Your task to perform on an android device: Open notification settings Image 0: 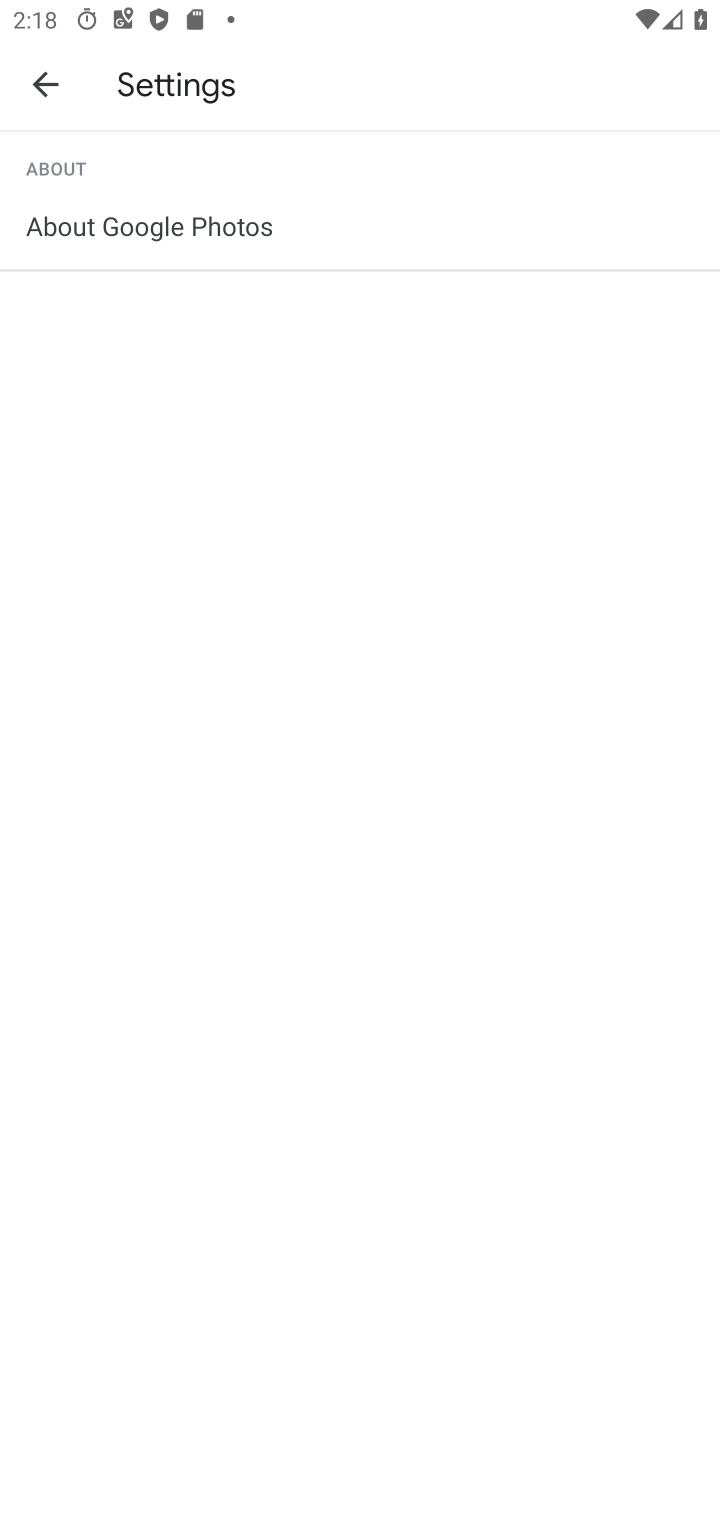
Step 0: press home button
Your task to perform on an android device: Open notification settings Image 1: 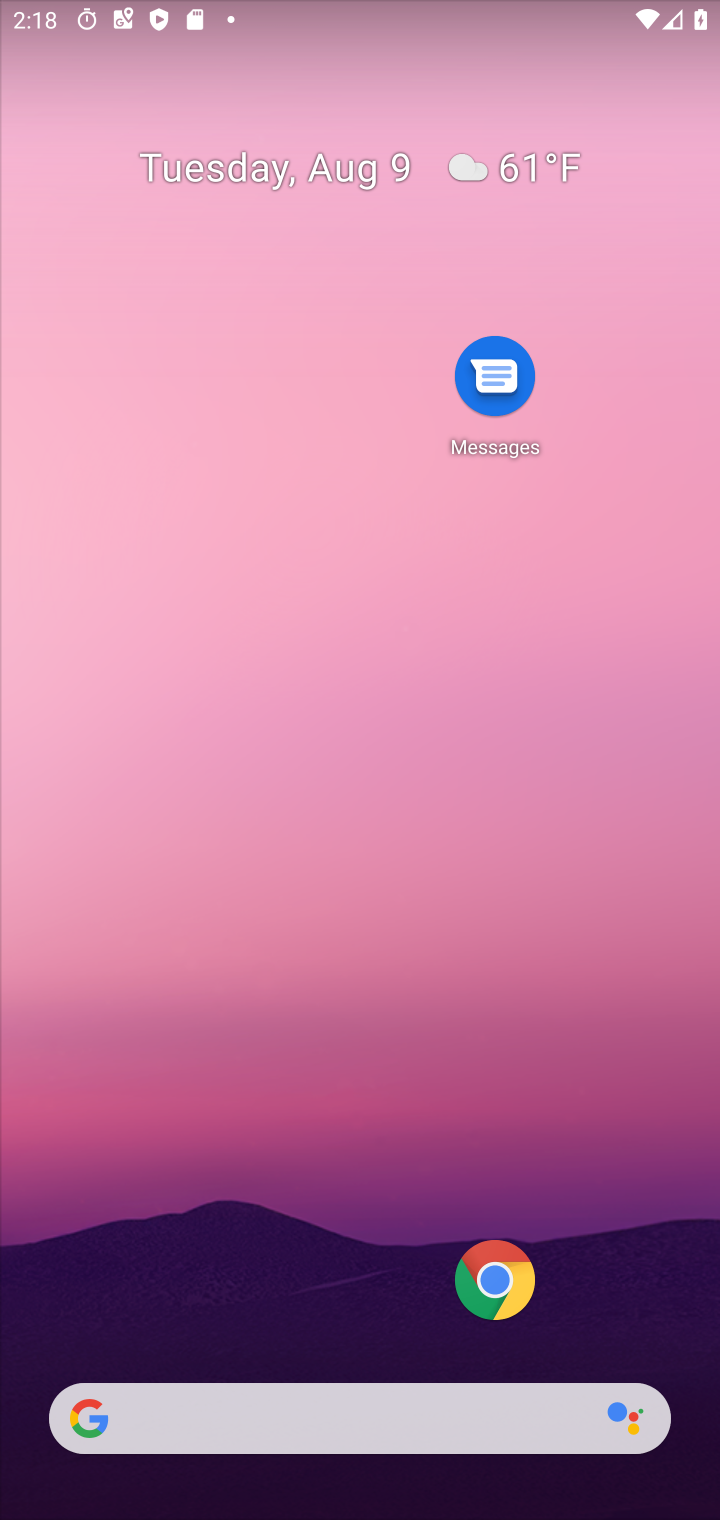
Step 1: drag from (318, 1366) to (591, 378)
Your task to perform on an android device: Open notification settings Image 2: 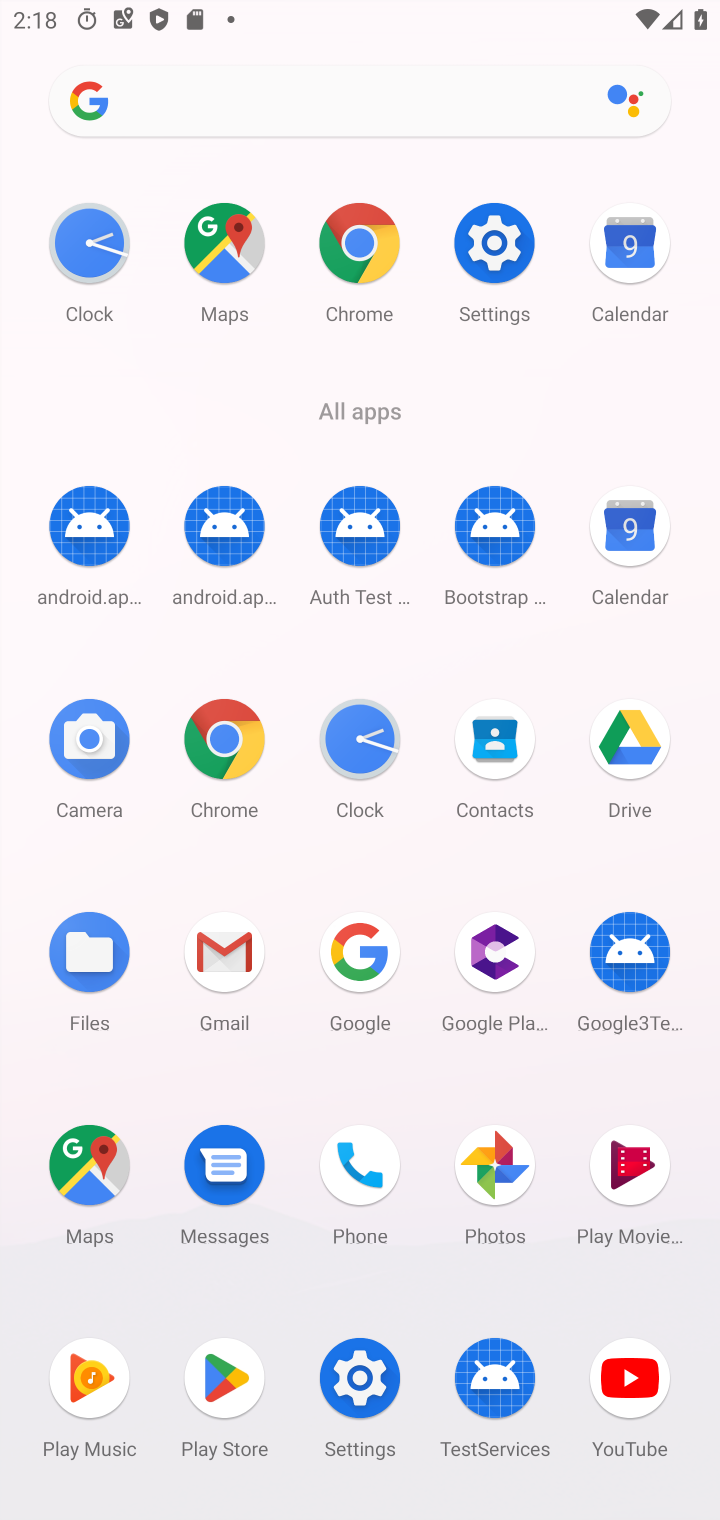
Step 2: click (484, 234)
Your task to perform on an android device: Open notification settings Image 3: 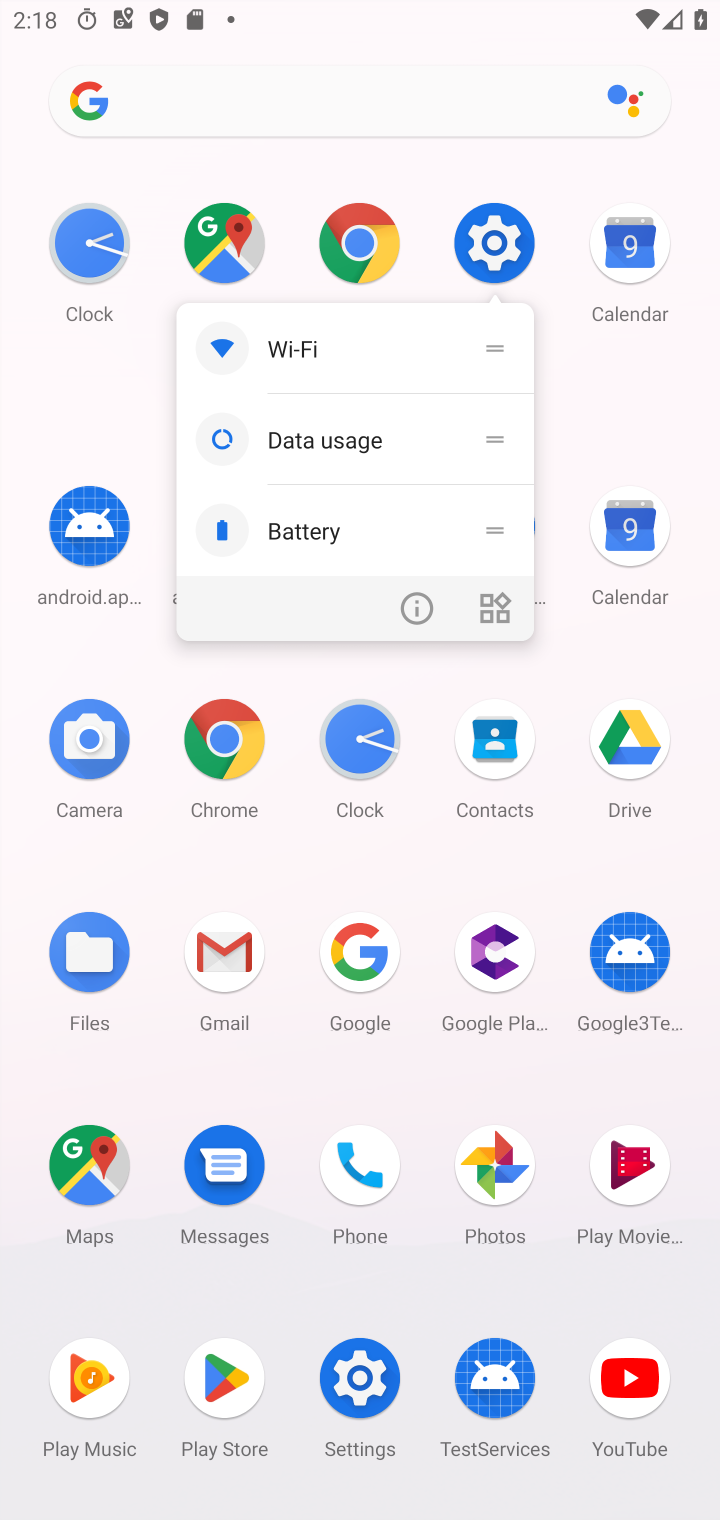
Step 3: click (484, 238)
Your task to perform on an android device: Open notification settings Image 4: 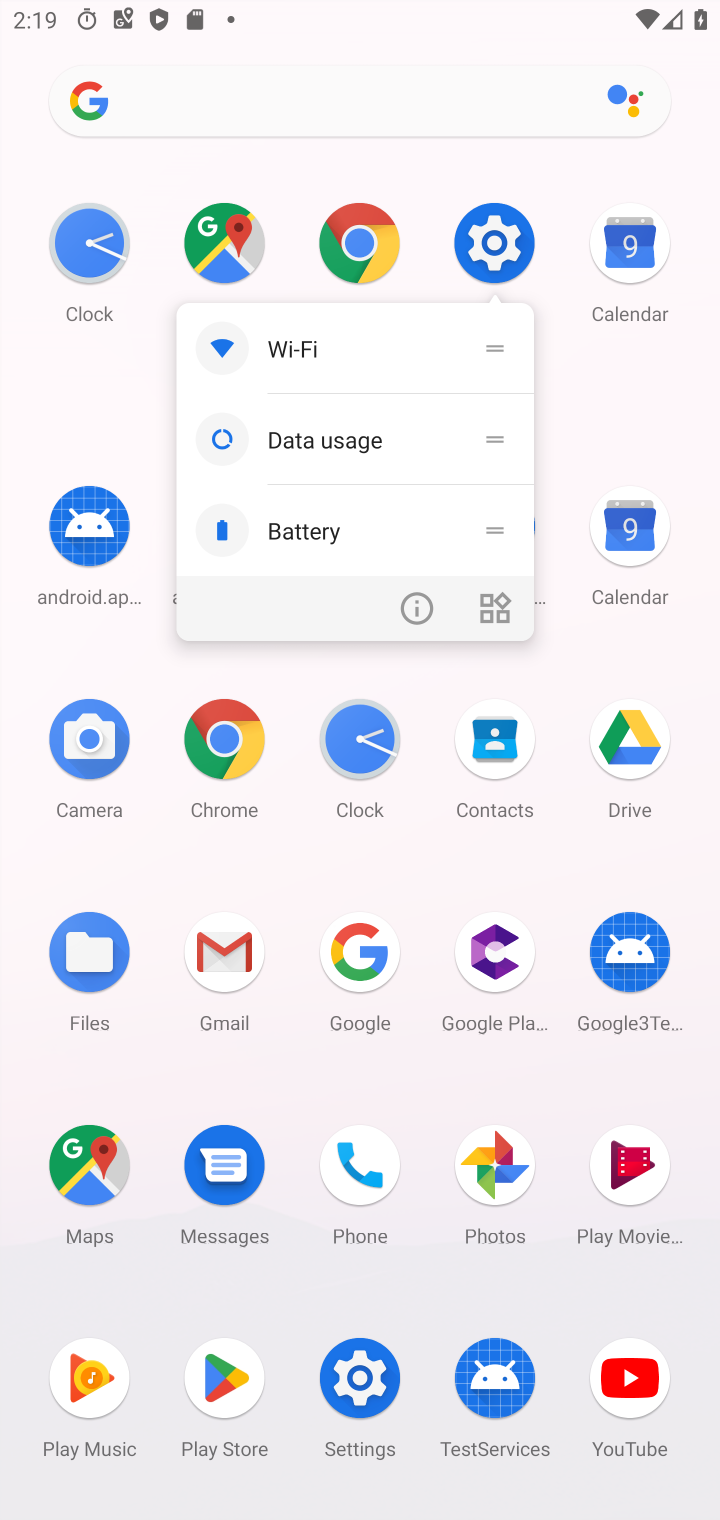
Step 4: click (484, 241)
Your task to perform on an android device: Open notification settings Image 5: 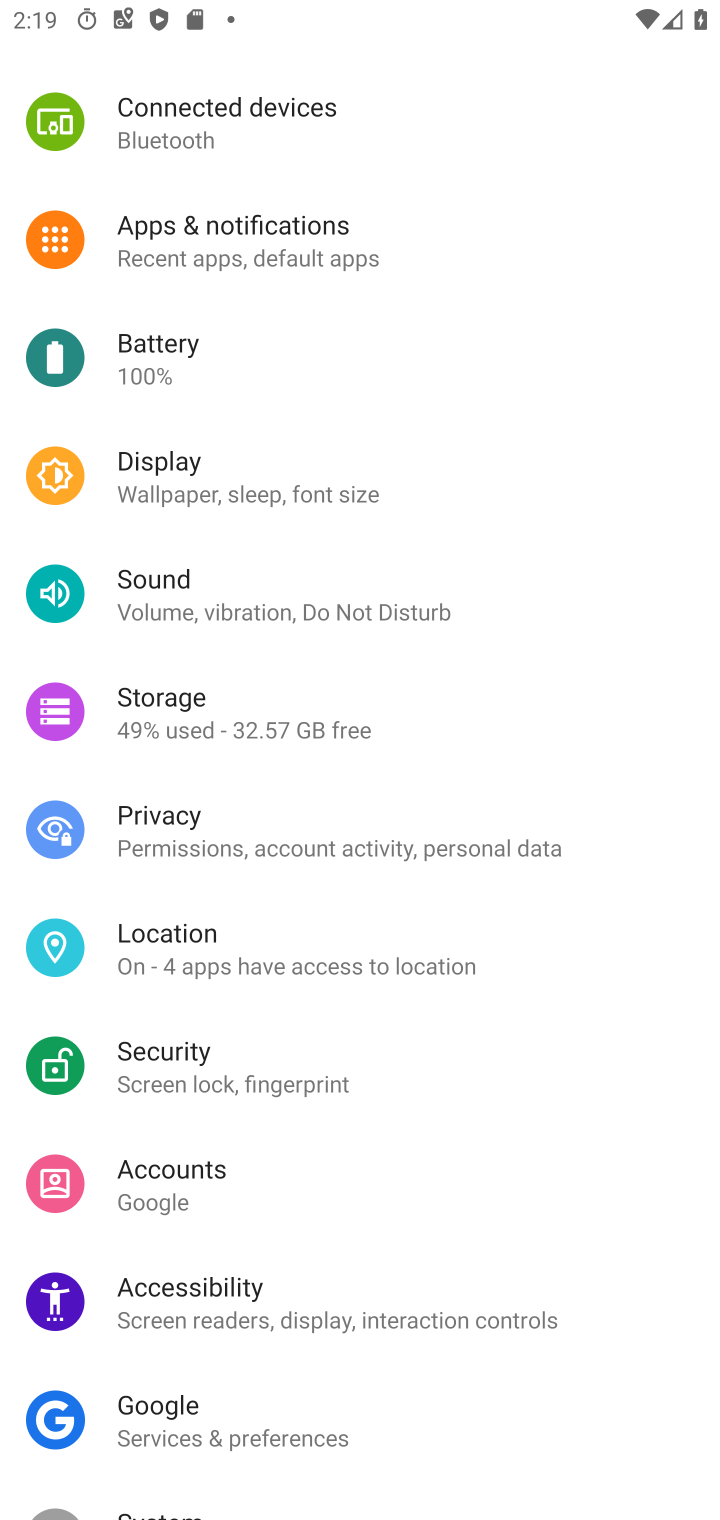
Step 5: click (299, 226)
Your task to perform on an android device: Open notification settings Image 6: 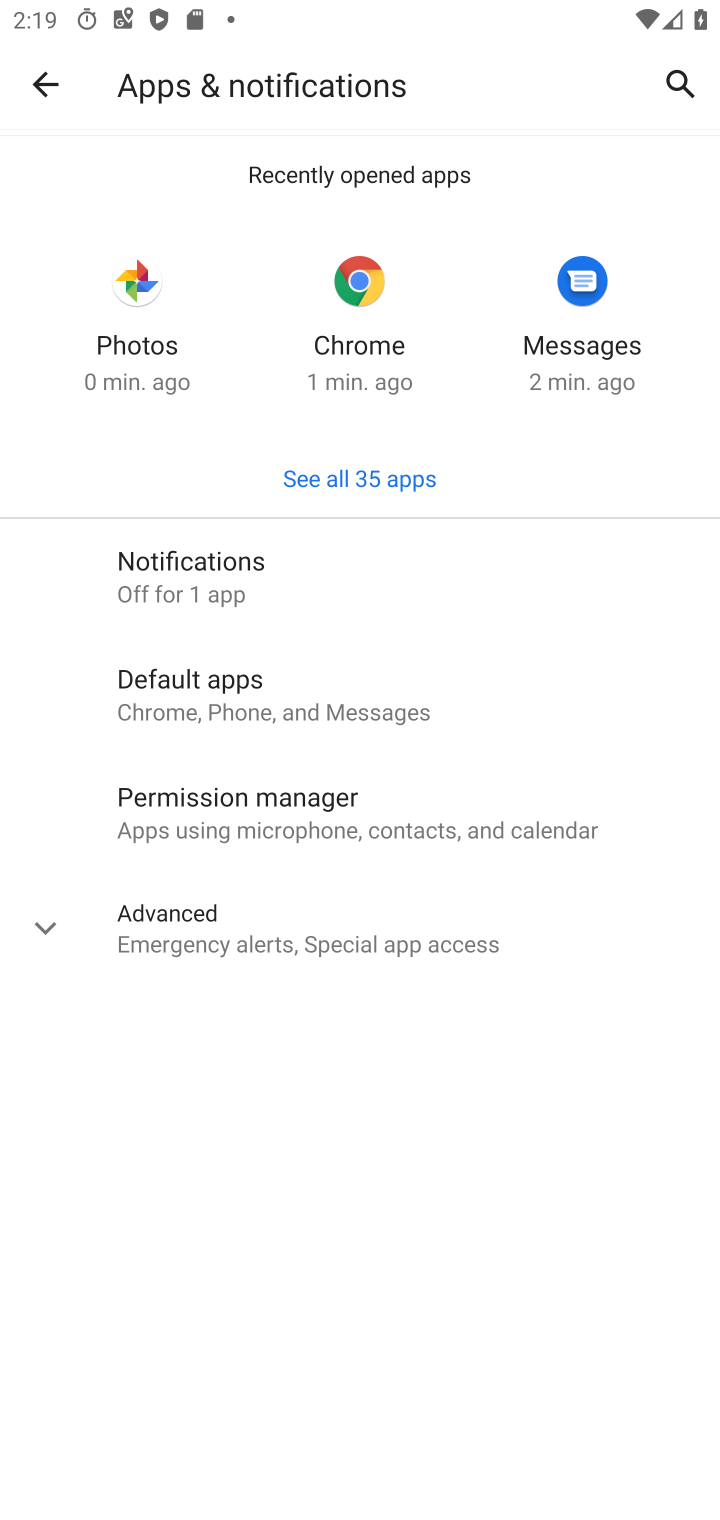
Step 6: click (227, 571)
Your task to perform on an android device: Open notification settings Image 7: 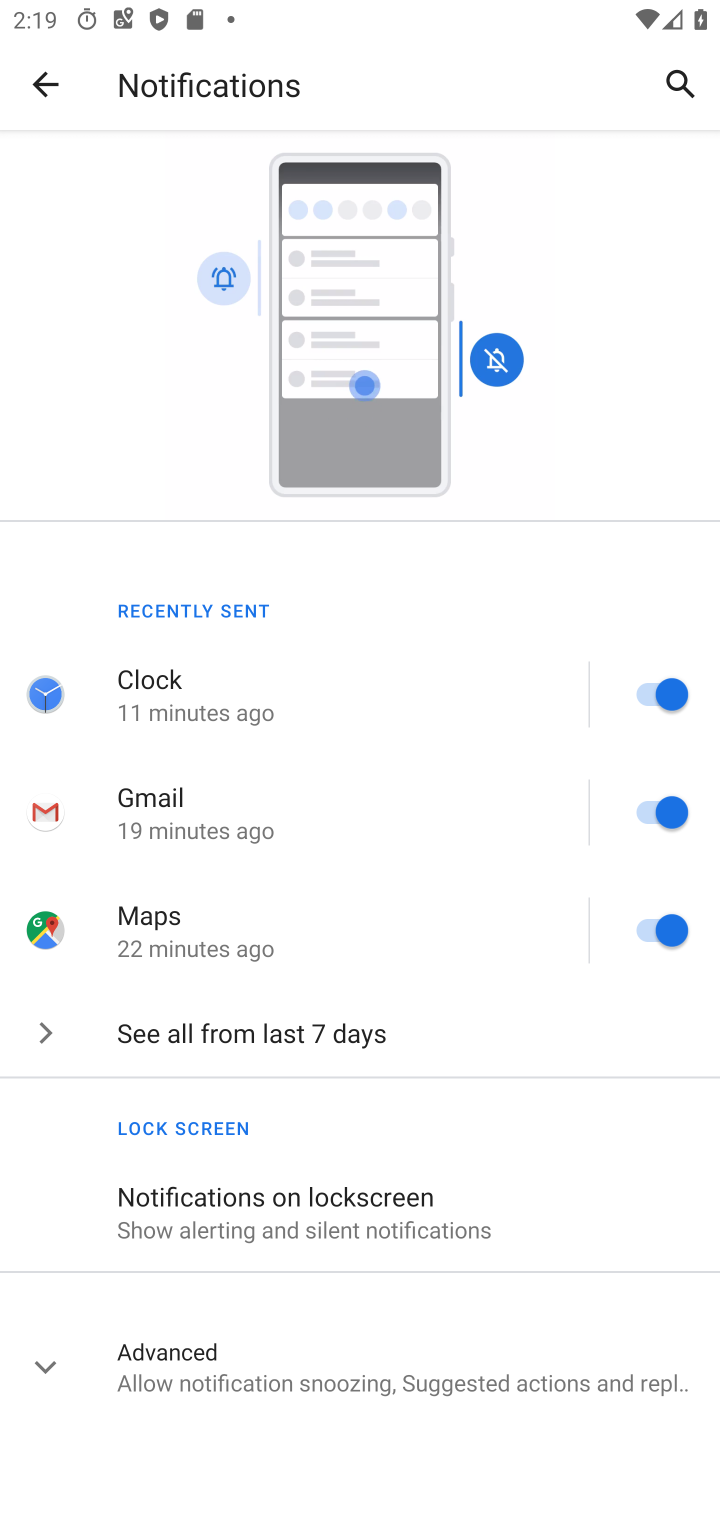
Step 7: task complete